Your task to perform on an android device: View the shopping cart on bestbuy.com. Add razer blade to the cart on bestbuy.com, then select checkout. Image 0: 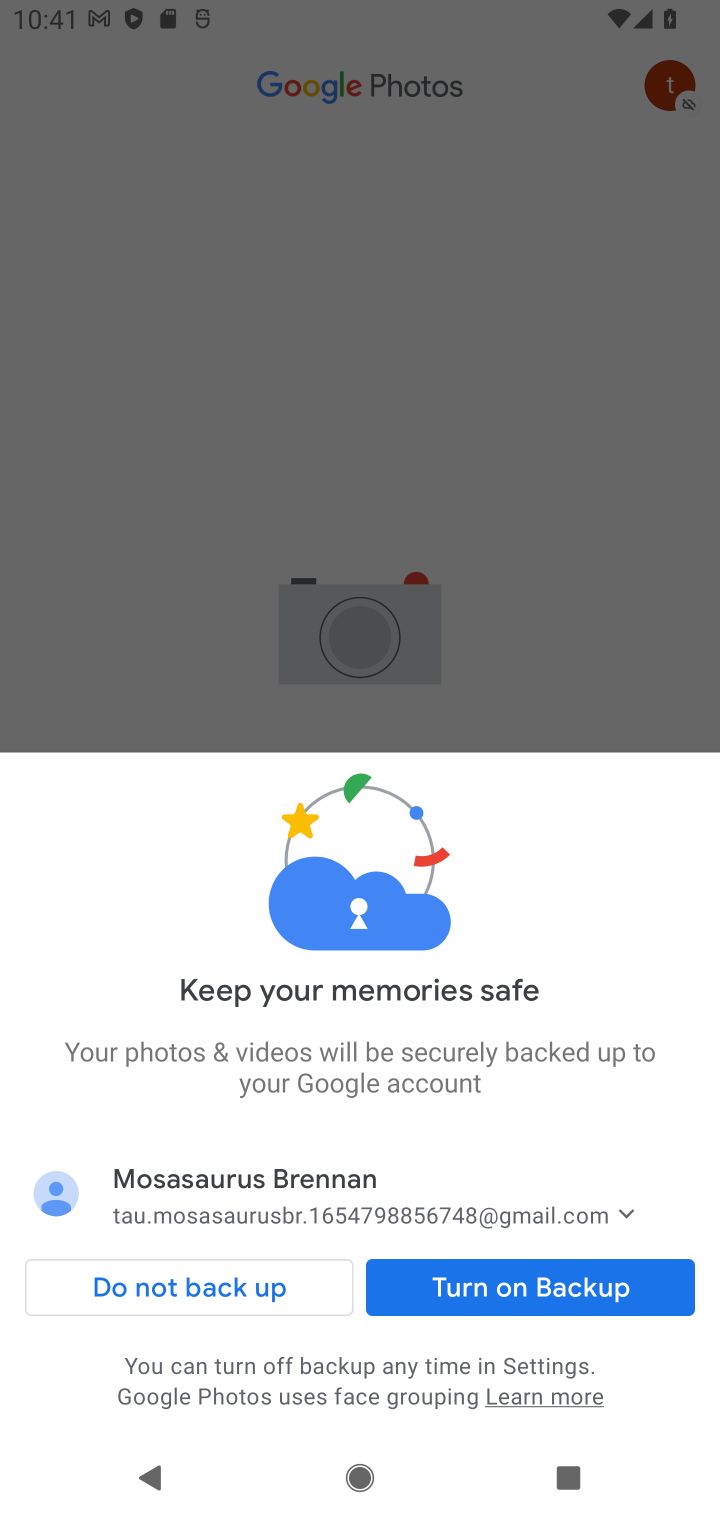
Step 0: press home button
Your task to perform on an android device: View the shopping cart on bestbuy.com. Add razer blade to the cart on bestbuy.com, then select checkout. Image 1: 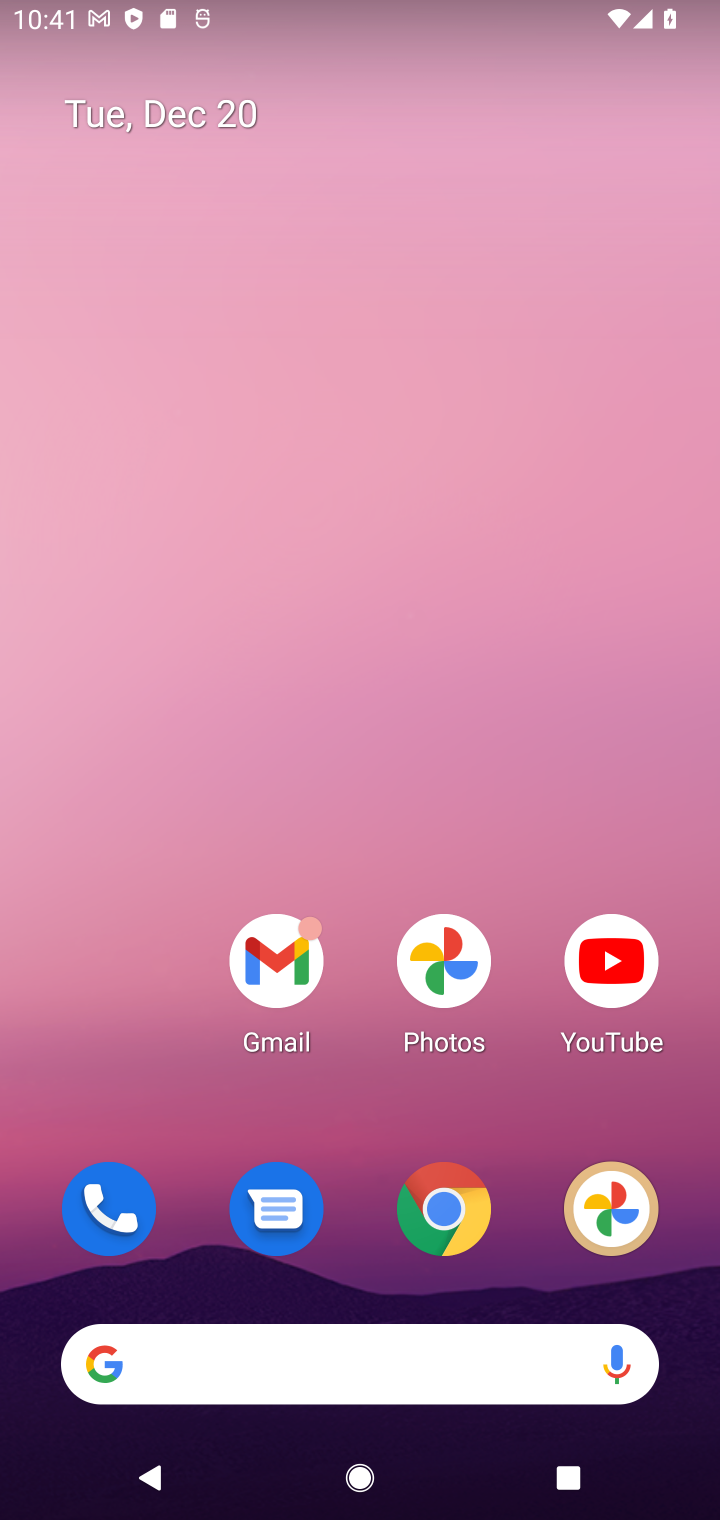
Step 1: click (448, 1217)
Your task to perform on an android device: View the shopping cart on bestbuy.com. Add razer blade to the cart on bestbuy.com, then select checkout. Image 2: 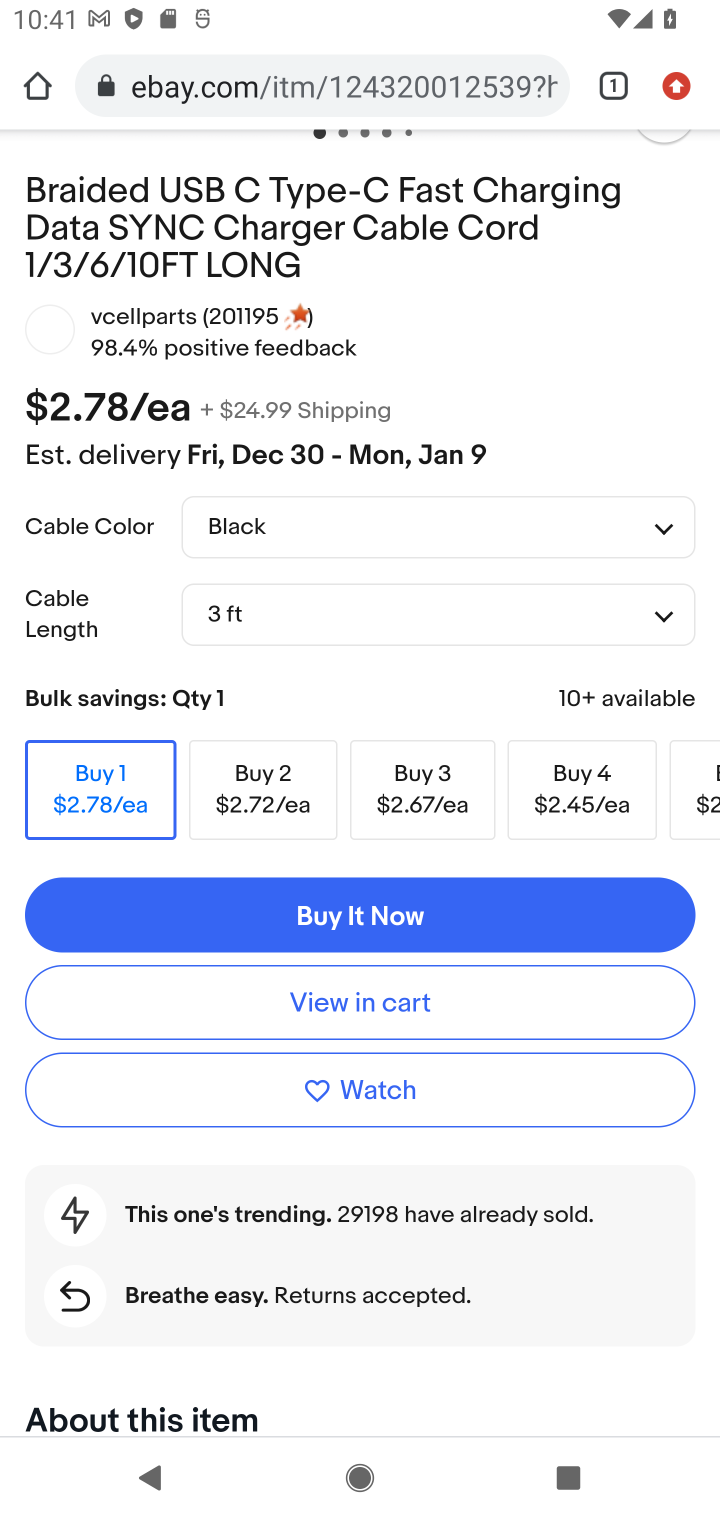
Step 2: click (272, 85)
Your task to perform on an android device: View the shopping cart on bestbuy.com. Add razer blade to the cart on bestbuy.com, then select checkout. Image 3: 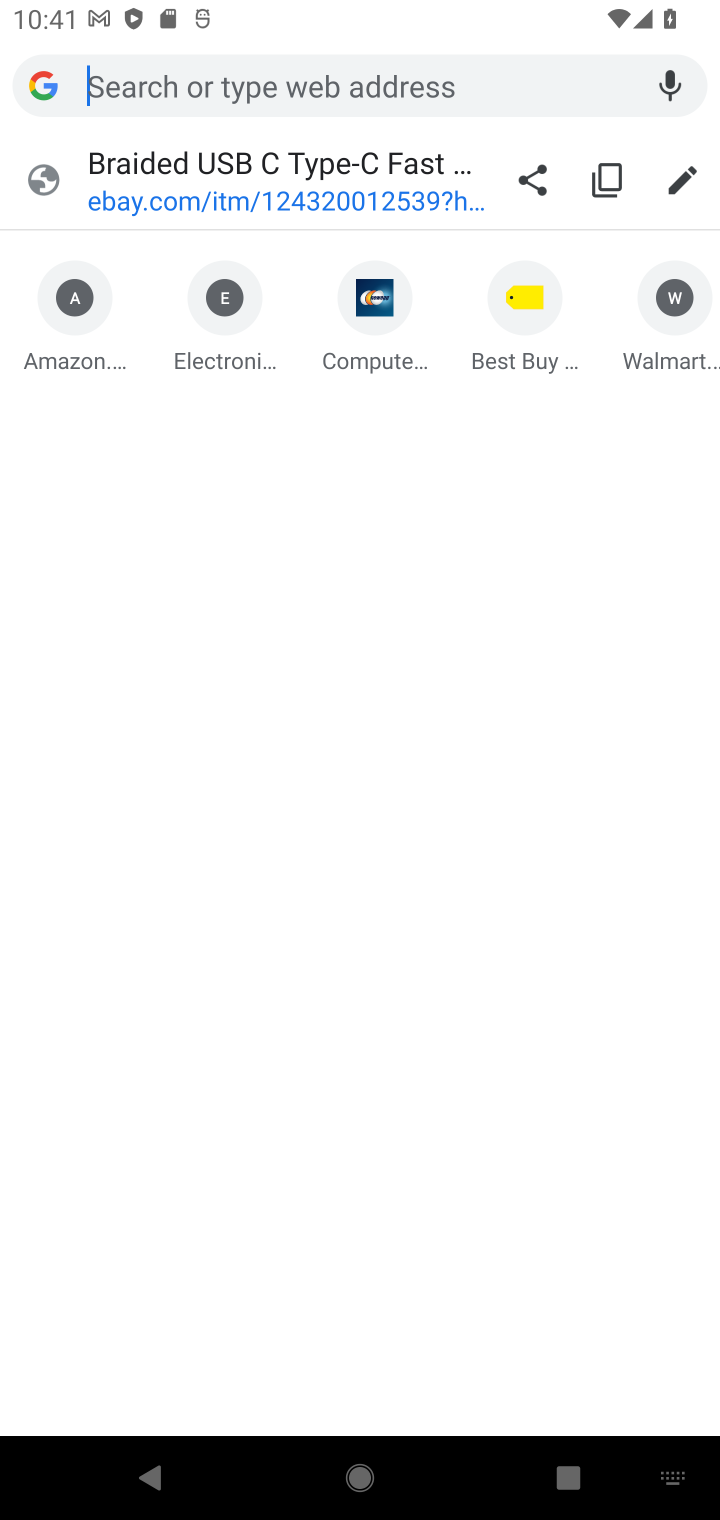
Step 3: click (523, 312)
Your task to perform on an android device: View the shopping cart on bestbuy.com. Add razer blade to the cart on bestbuy.com, then select checkout. Image 4: 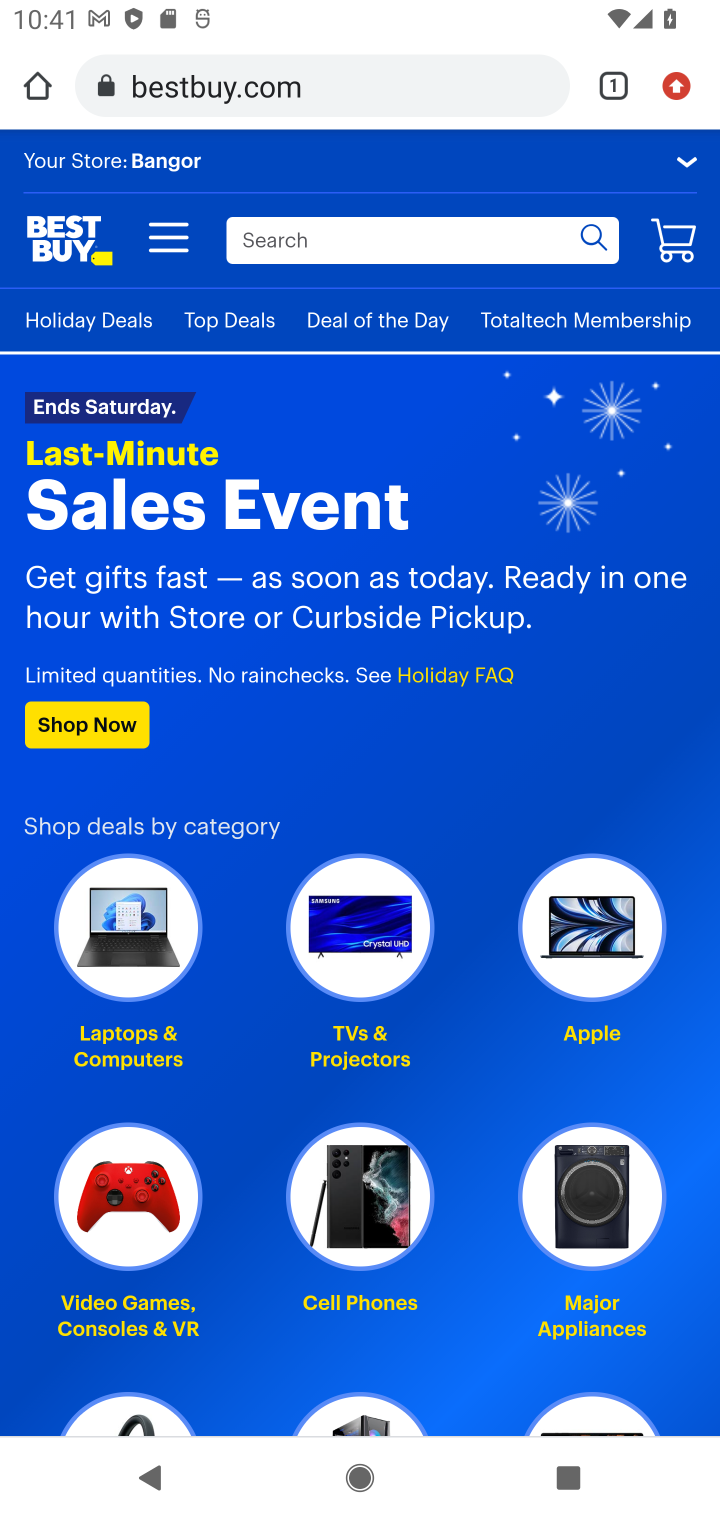
Step 4: click (673, 253)
Your task to perform on an android device: View the shopping cart on bestbuy.com. Add razer blade to the cart on bestbuy.com, then select checkout. Image 5: 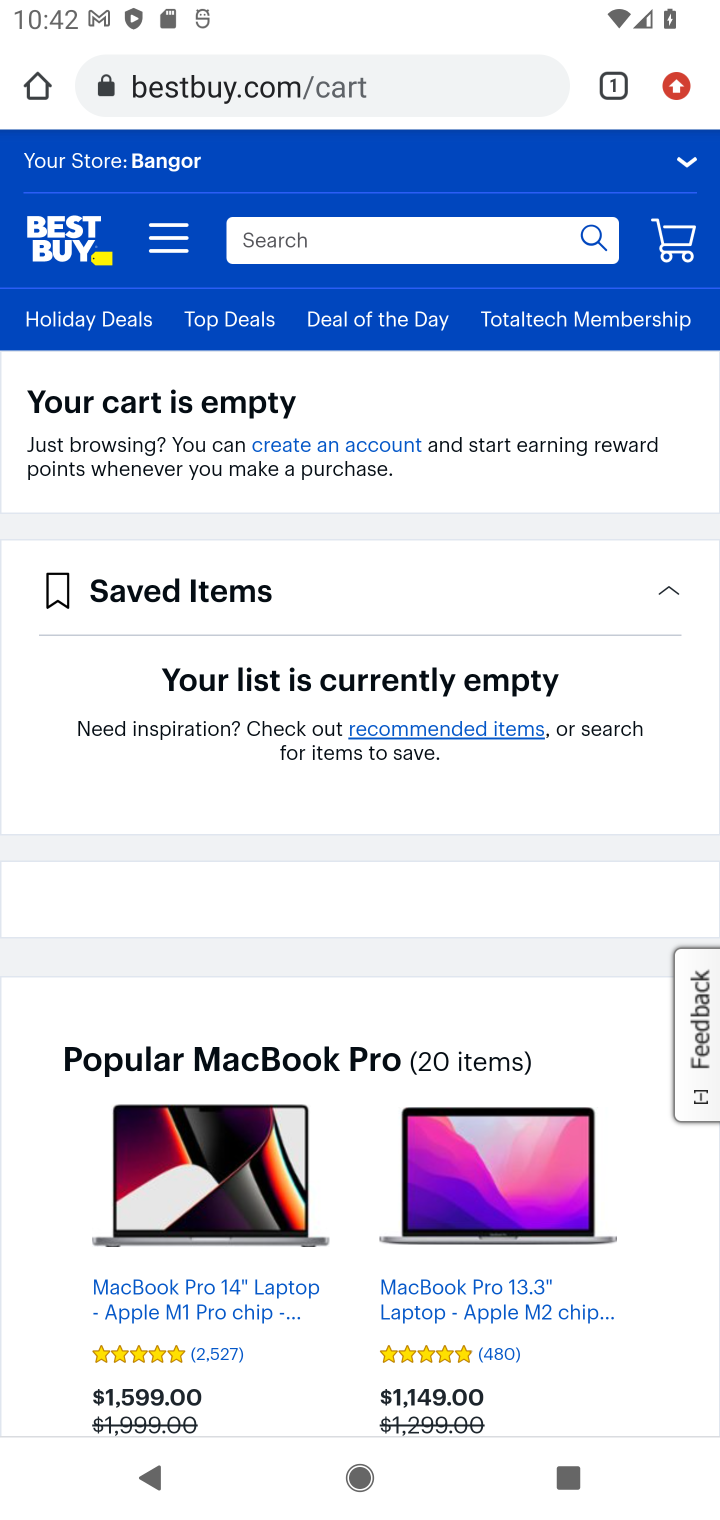
Step 5: click (288, 239)
Your task to perform on an android device: View the shopping cart on bestbuy.com. Add razer blade to the cart on bestbuy.com, then select checkout. Image 6: 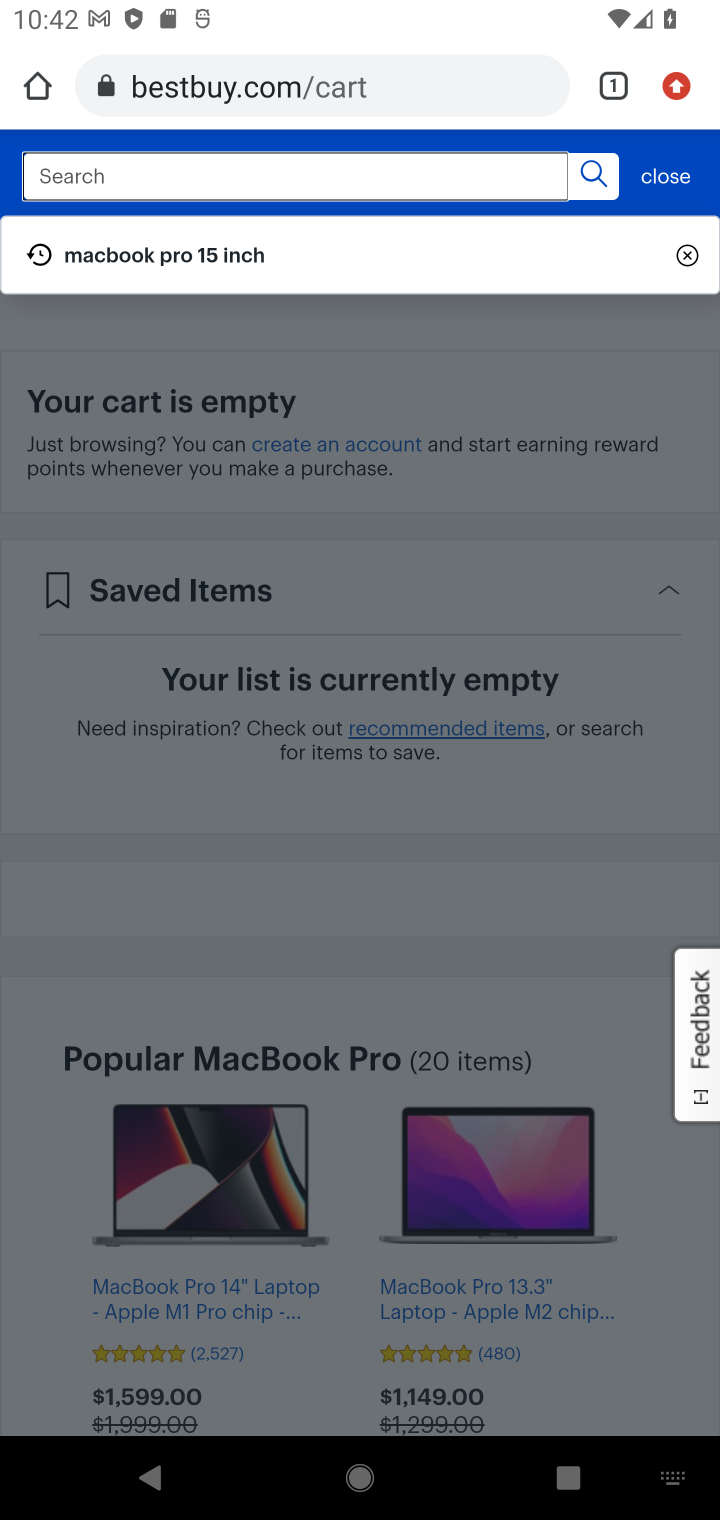
Step 6: type "razer blade "
Your task to perform on an android device: View the shopping cart on bestbuy.com. Add razer blade to the cart on bestbuy.com, then select checkout. Image 7: 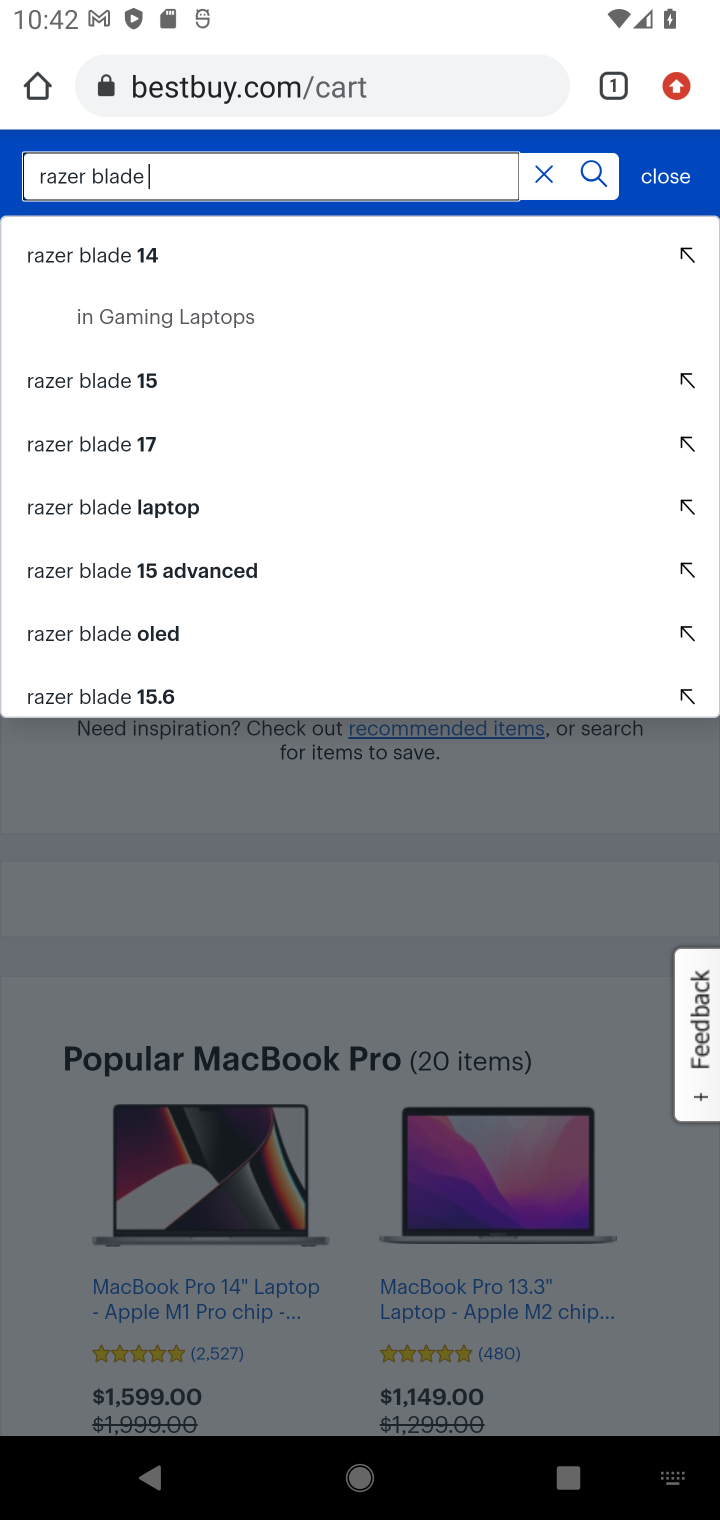
Step 7: click (593, 170)
Your task to perform on an android device: View the shopping cart on bestbuy.com. Add razer blade to the cart on bestbuy.com, then select checkout. Image 8: 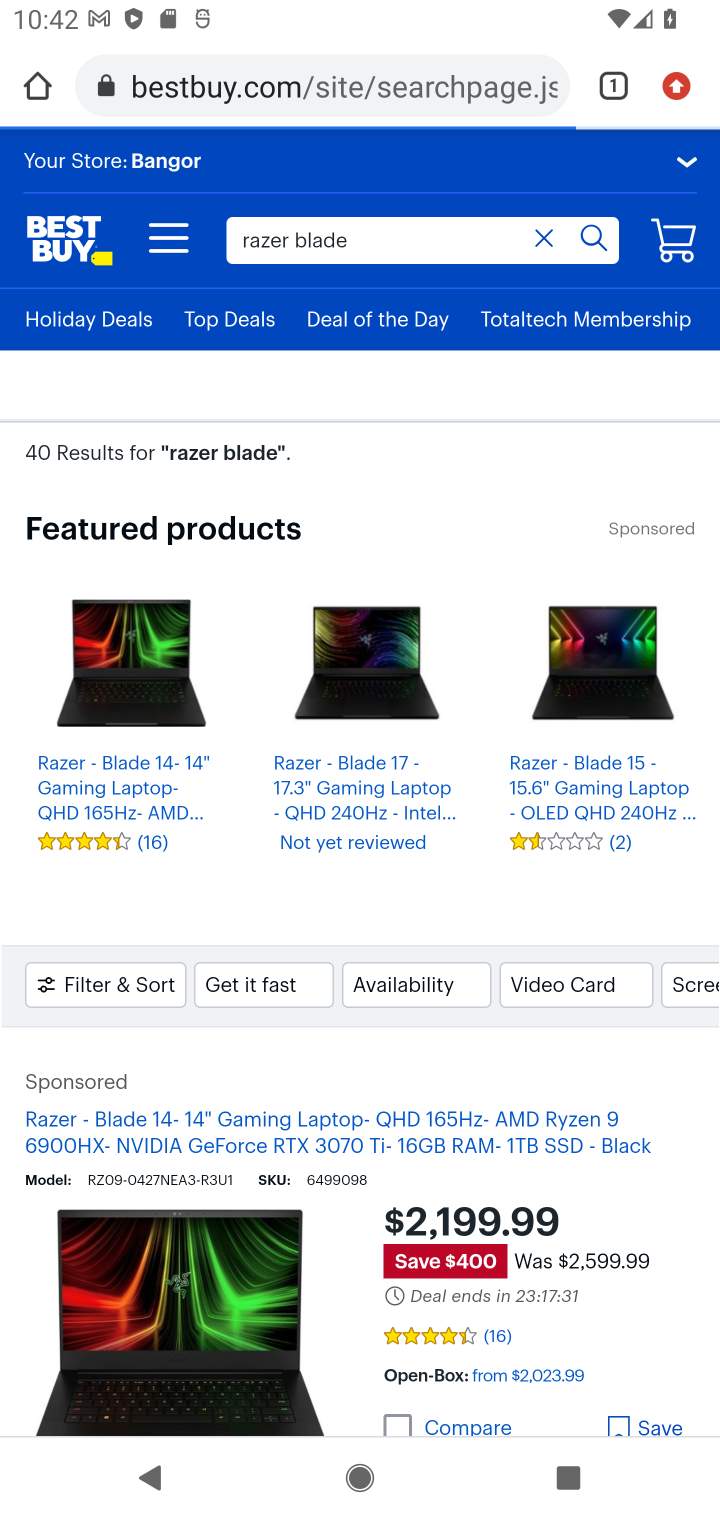
Step 8: drag from (318, 1247) to (294, 739)
Your task to perform on an android device: View the shopping cart on bestbuy.com. Add razer blade to the cart on bestbuy.com, then select checkout. Image 9: 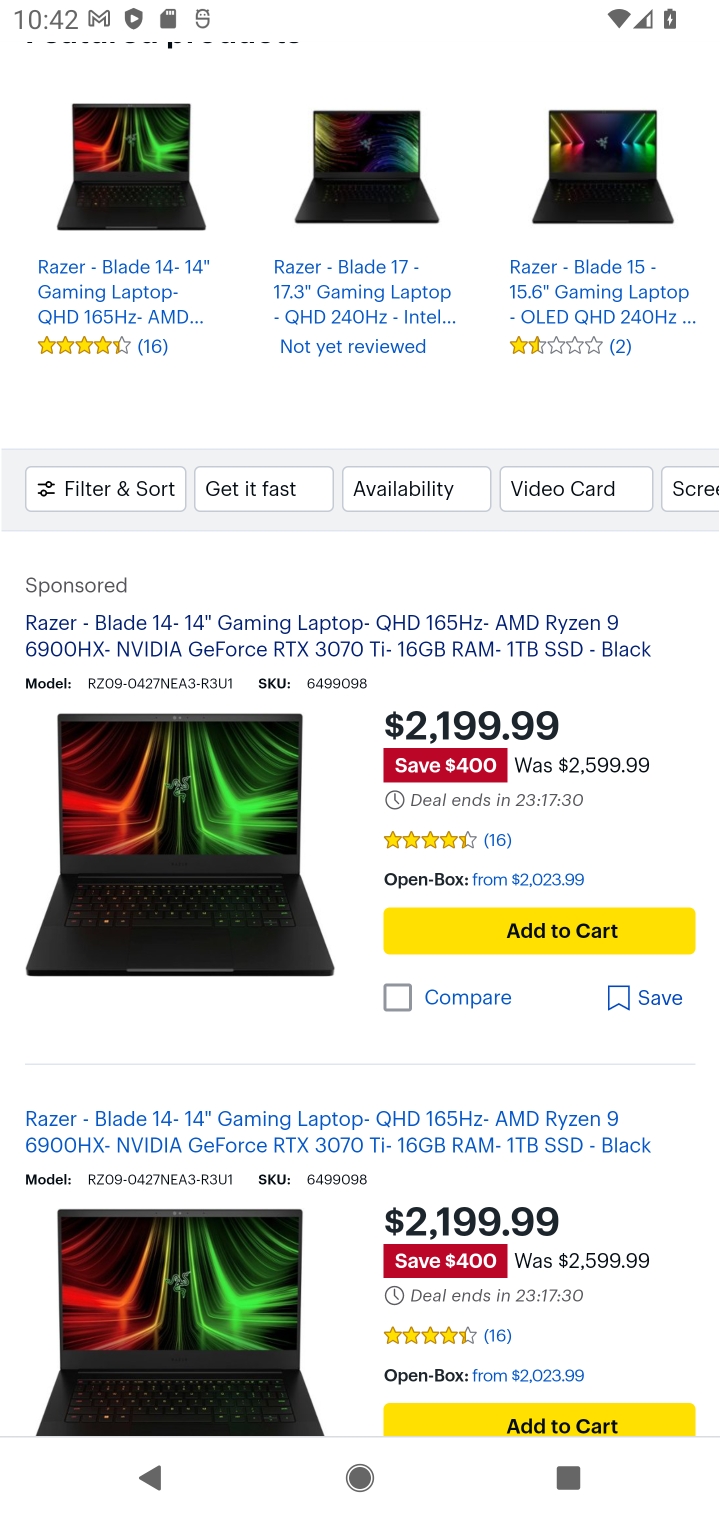
Step 9: click (579, 937)
Your task to perform on an android device: View the shopping cart on bestbuy.com. Add razer blade to the cart on bestbuy.com, then select checkout. Image 10: 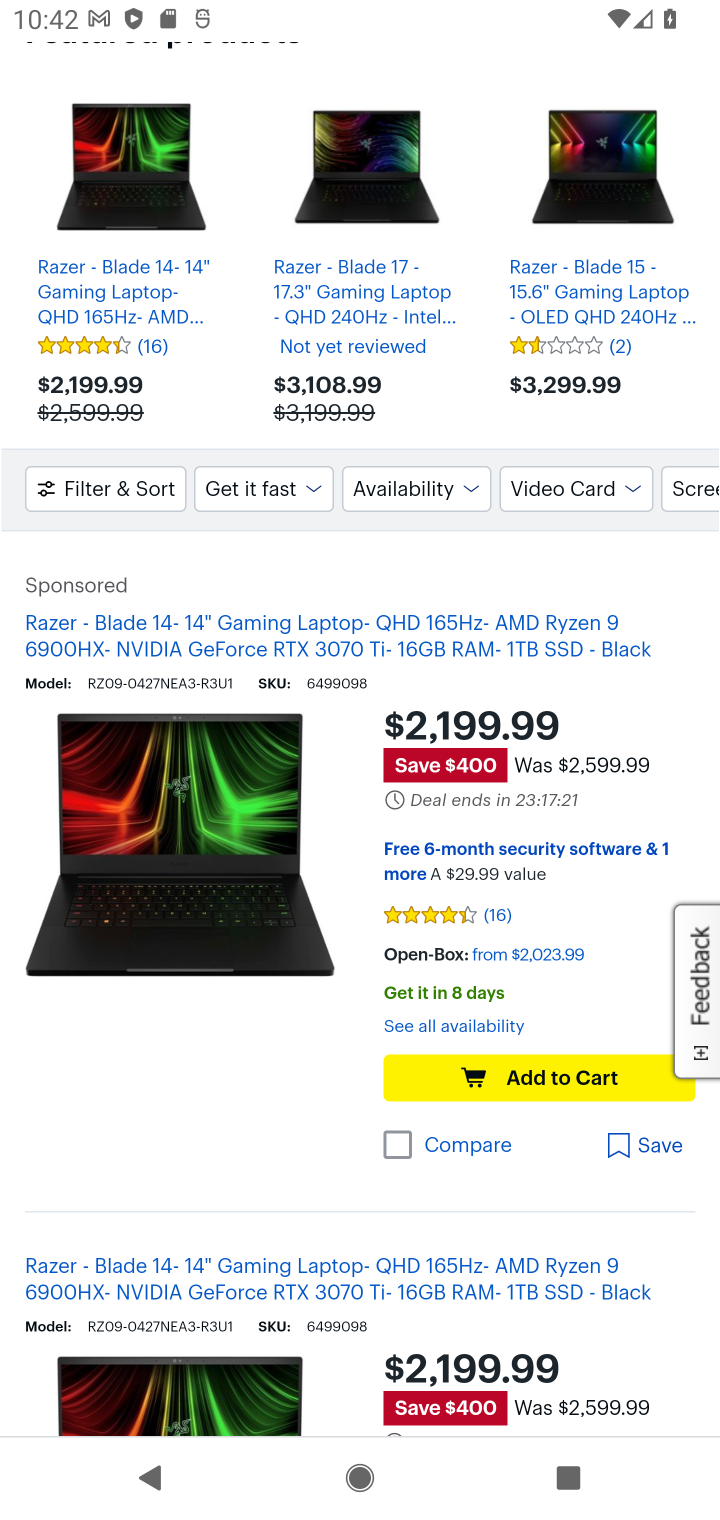
Step 10: click (539, 1078)
Your task to perform on an android device: View the shopping cart on bestbuy.com. Add razer blade to the cart on bestbuy.com, then select checkout. Image 11: 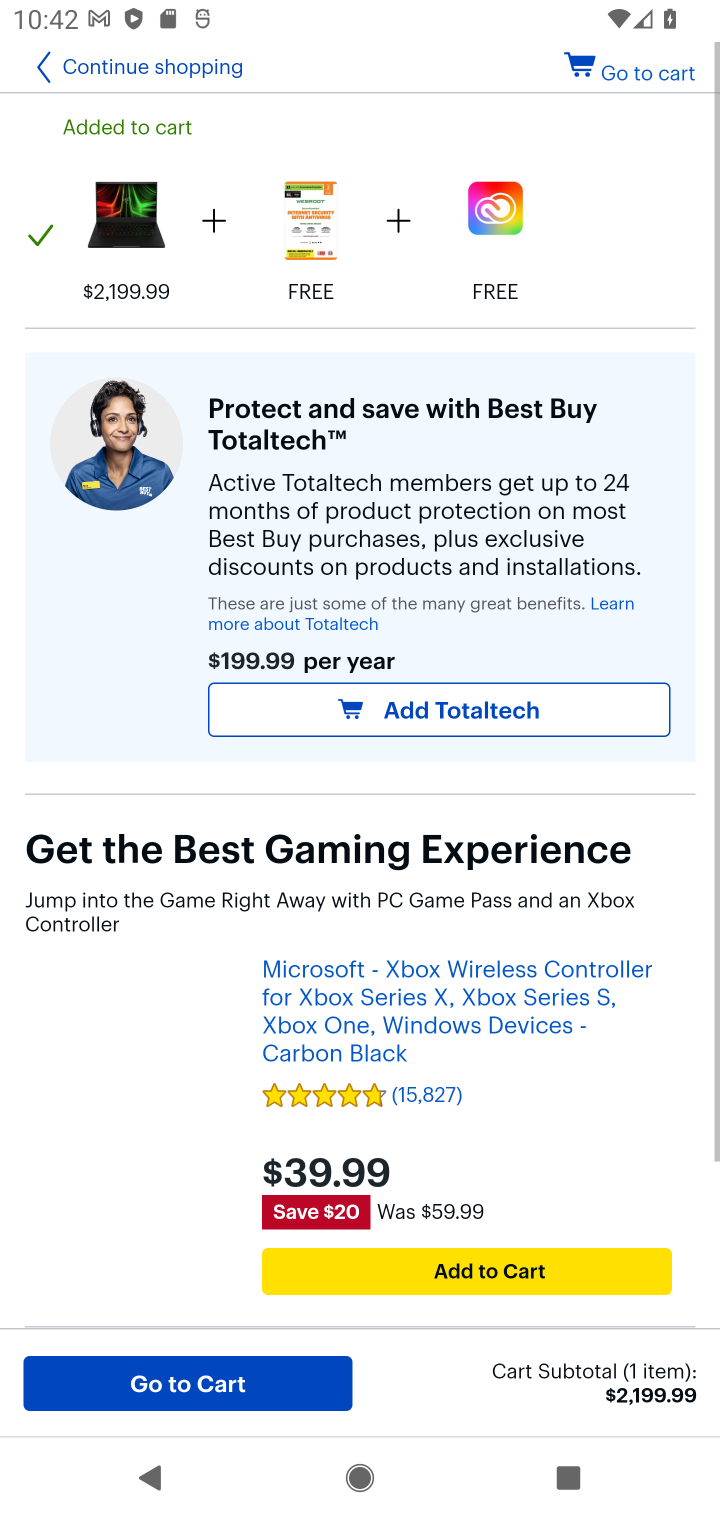
Step 11: click (647, 80)
Your task to perform on an android device: View the shopping cart on bestbuy.com. Add razer blade to the cart on bestbuy.com, then select checkout. Image 12: 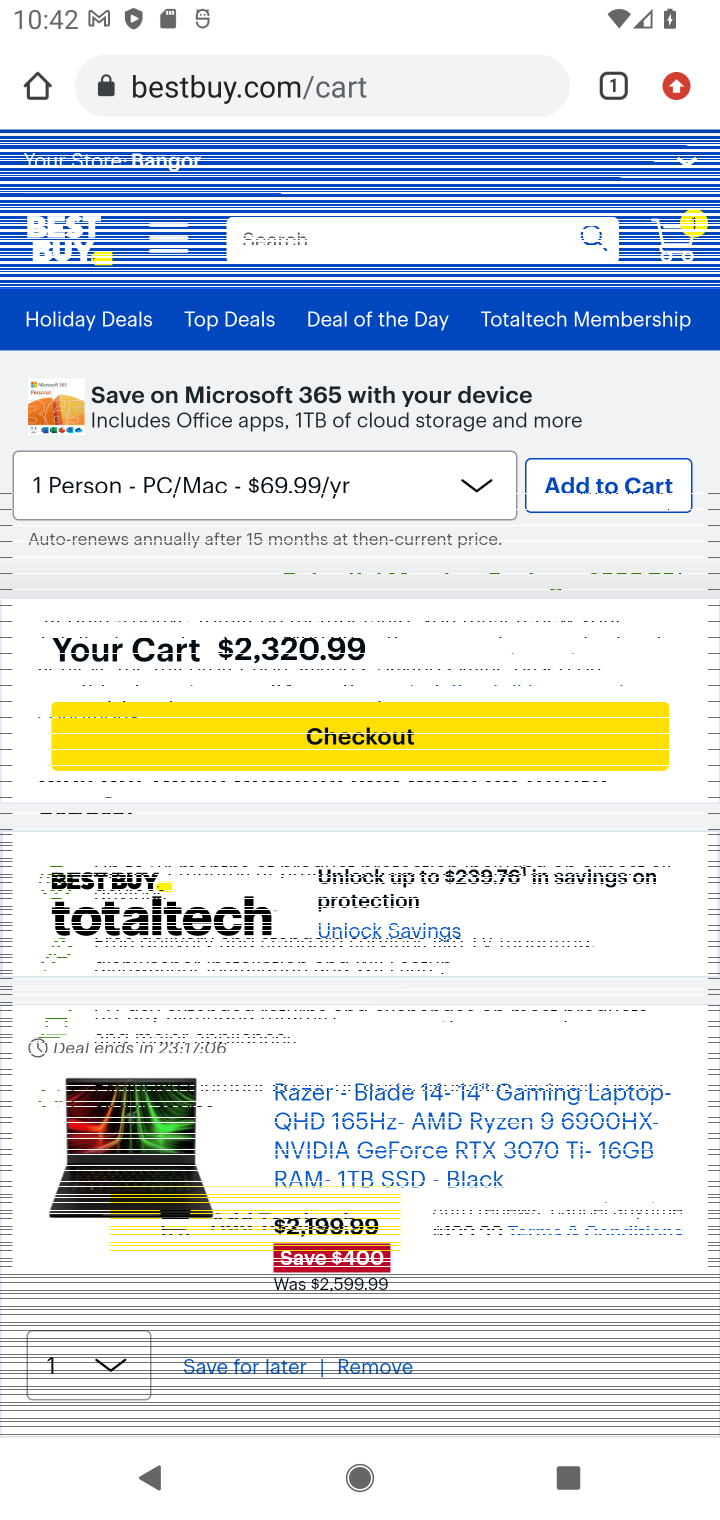
Step 12: click (385, 753)
Your task to perform on an android device: View the shopping cart on bestbuy.com. Add razer blade to the cart on bestbuy.com, then select checkout. Image 13: 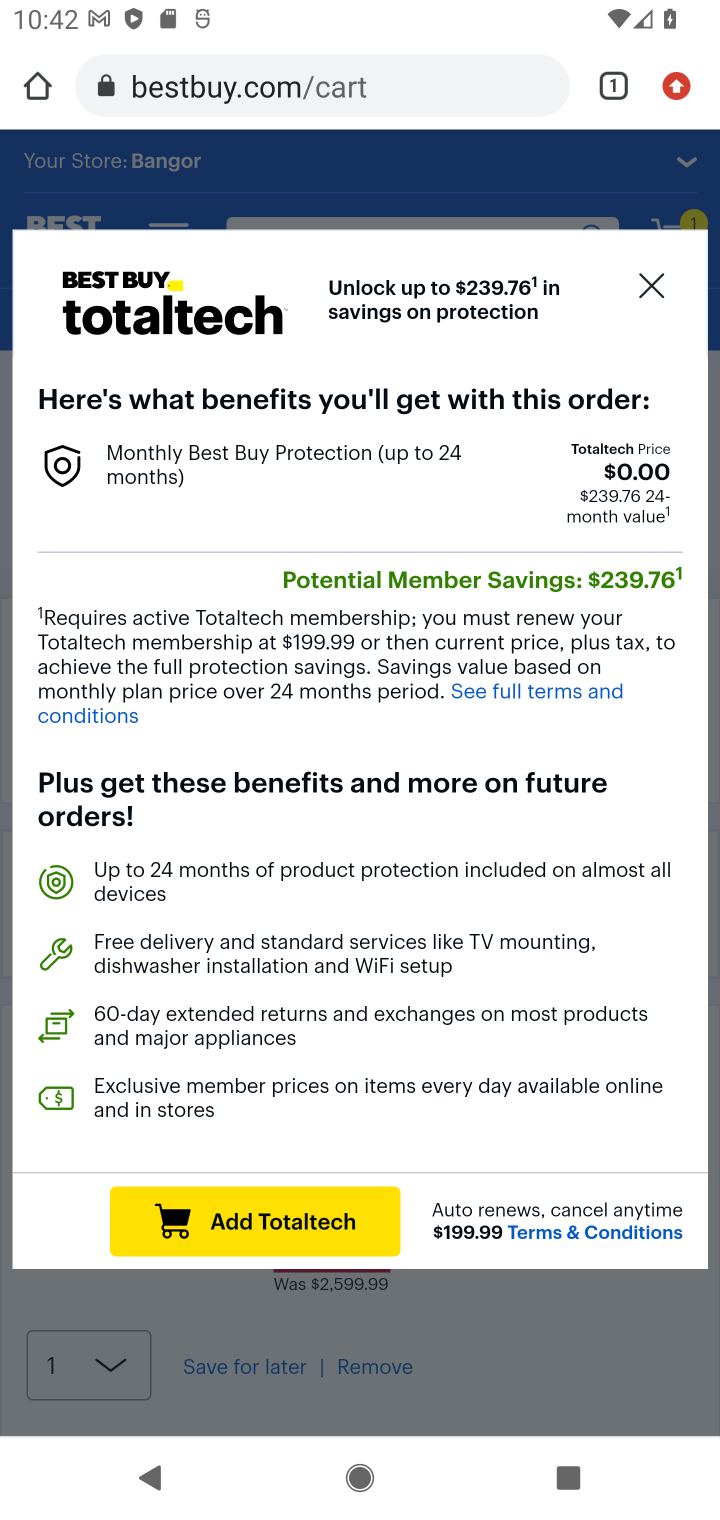
Step 13: click (651, 294)
Your task to perform on an android device: View the shopping cart on bestbuy.com. Add razer blade to the cart on bestbuy.com, then select checkout. Image 14: 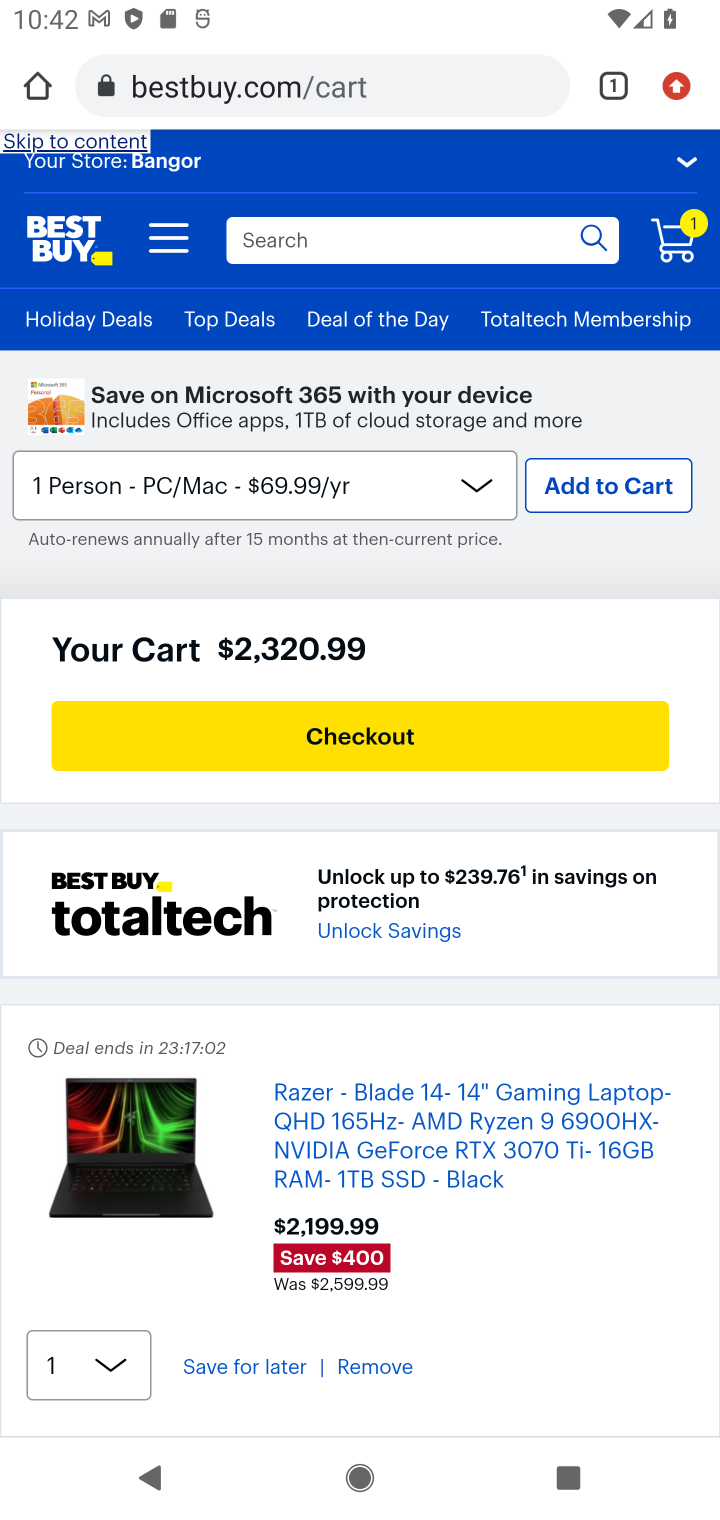
Step 14: click (331, 733)
Your task to perform on an android device: View the shopping cart on bestbuy.com. Add razer blade to the cart on bestbuy.com, then select checkout. Image 15: 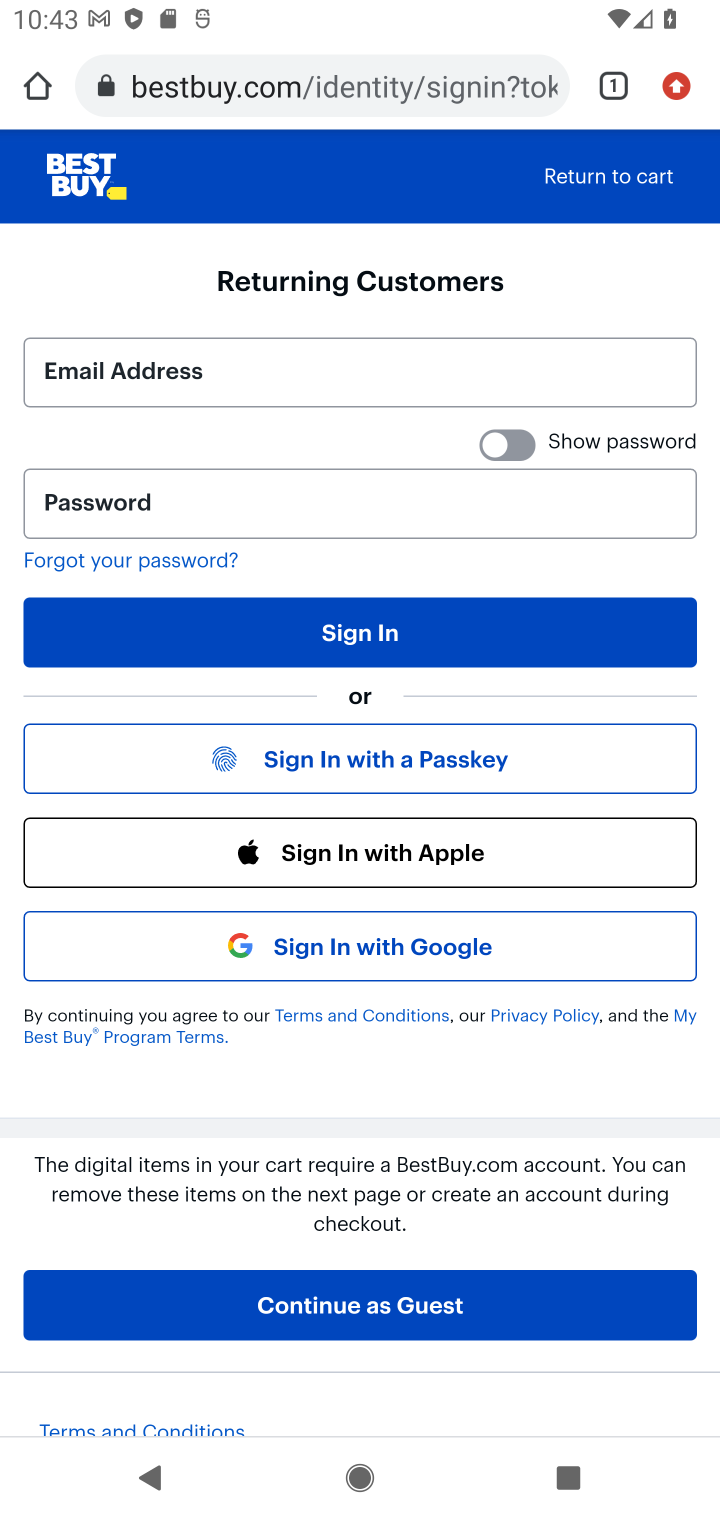
Step 15: task complete